Your task to perform on an android device: check out phone information Image 0: 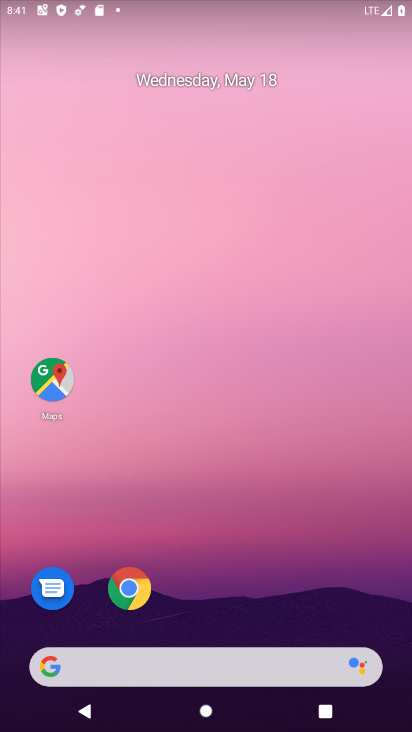
Step 0: drag from (370, 628) to (371, 0)
Your task to perform on an android device: check out phone information Image 1: 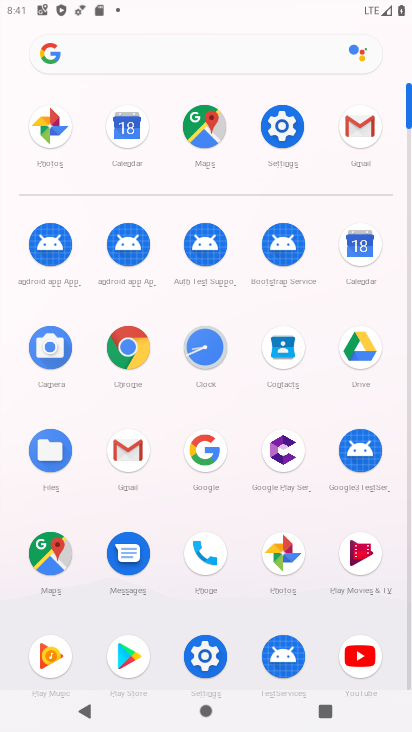
Step 1: click (283, 132)
Your task to perform on an android device: check out phone information Image 2: 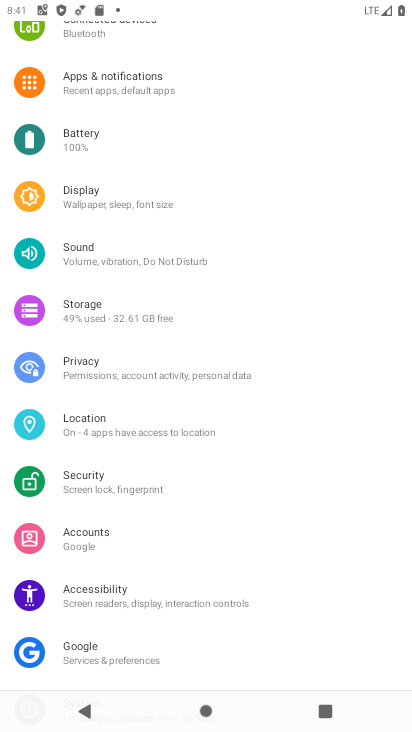
Step 2: drag from (335, 584) to (357, 100)
Your task to perform on an android device: check out phone information Image 3: 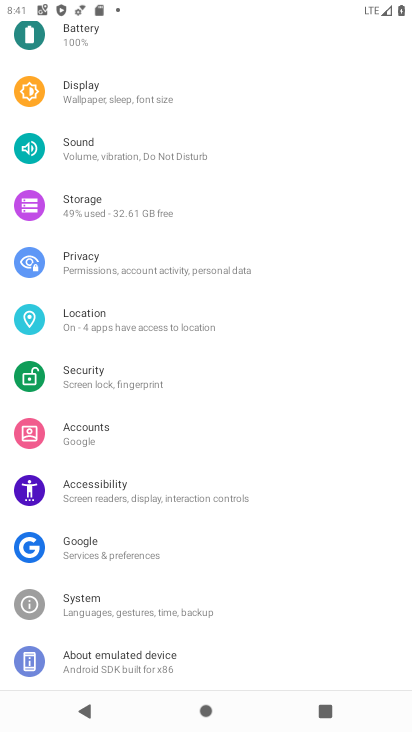
Step 3: click (123, 673)
Your task to perform on an android device: check out phone information Image 4: 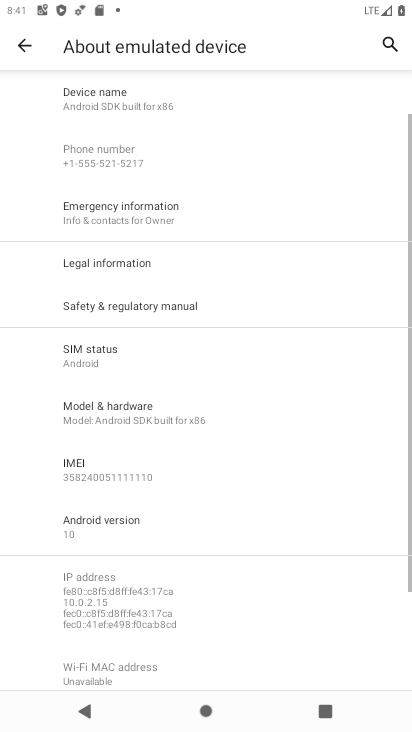
Step 4: task complete